Your task to perform on an android device: open a bookmark in the chrome app Image 0: 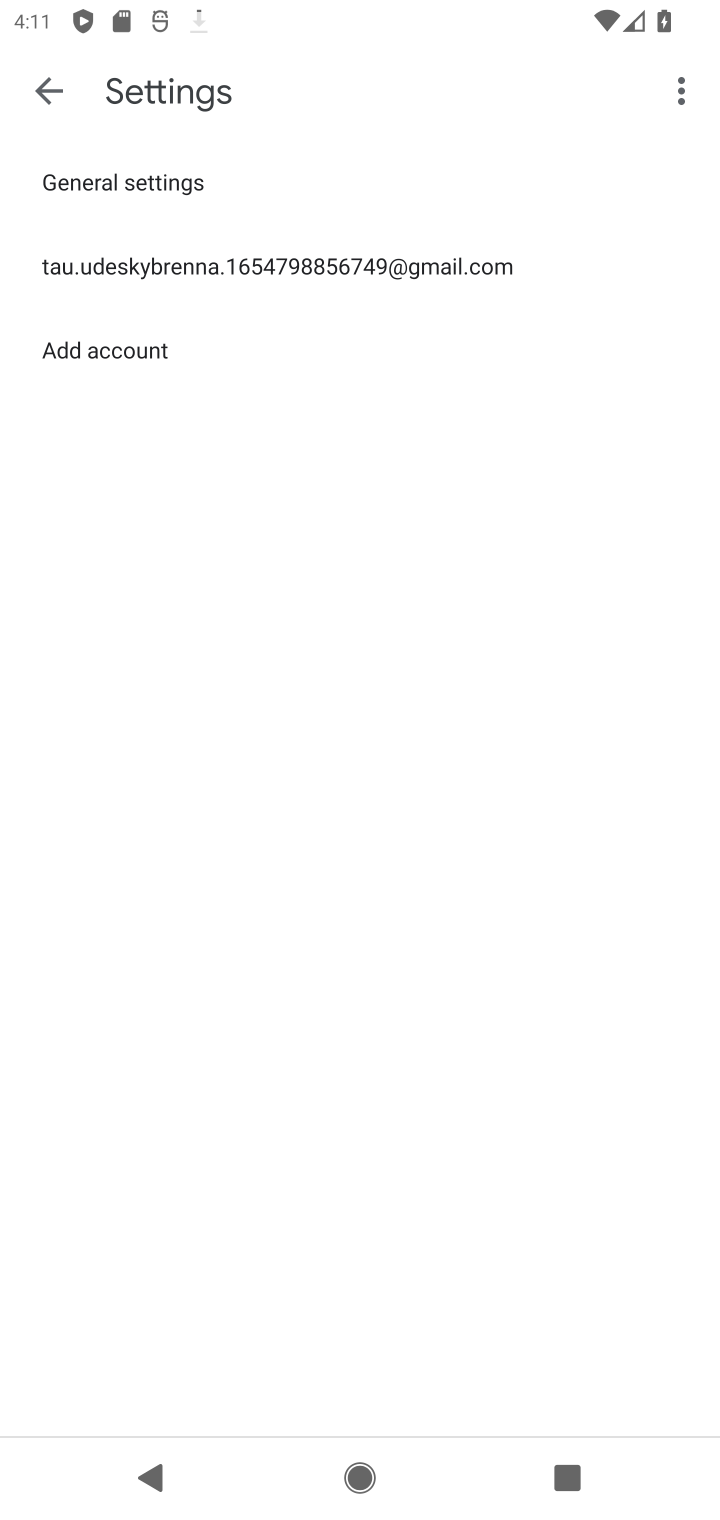
Step 0: press home button
Your task to perform on an android device: open a bookmark in the chrome app Image 1: 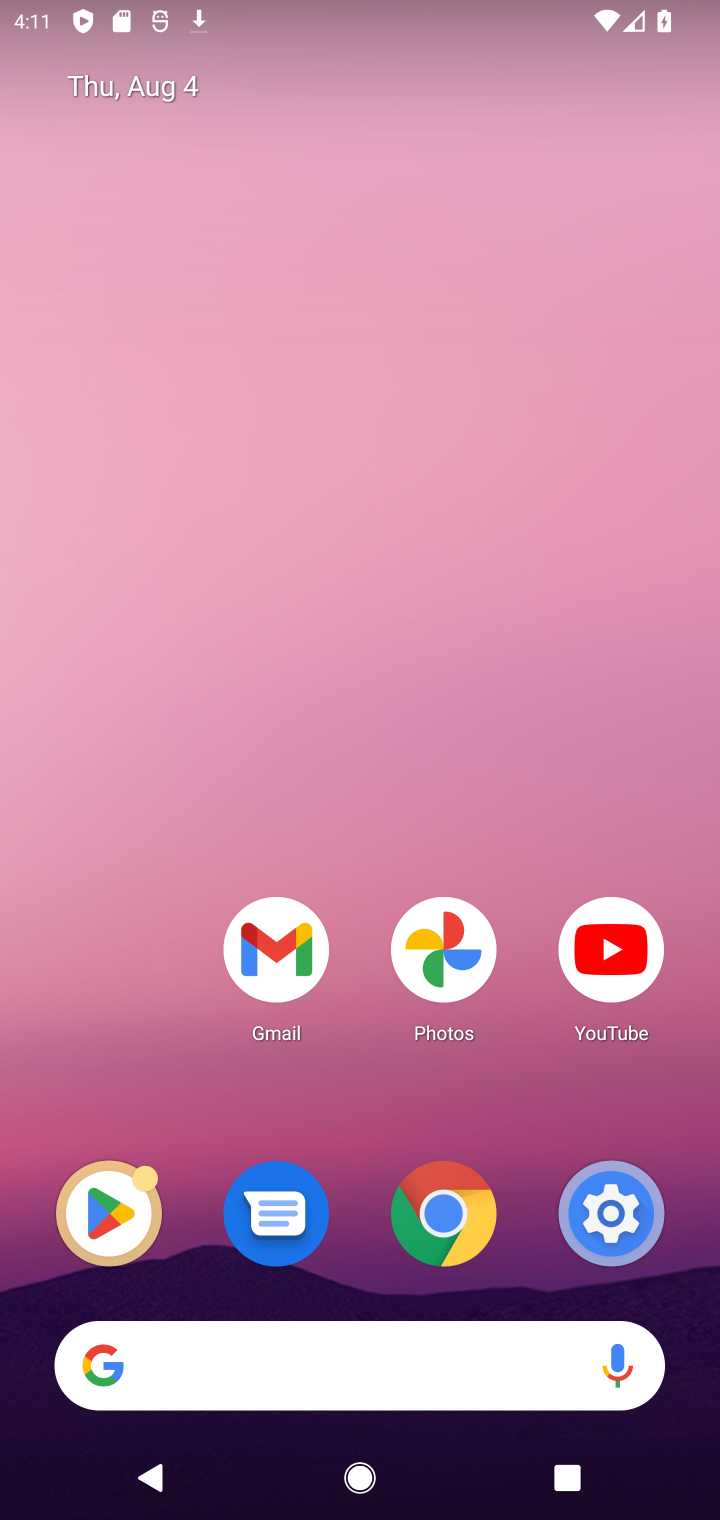
Step 1: drag from (168, 1101) to (275, 195)
Your task to perform on an android device: open a bookmark in the chrome app Image 2: 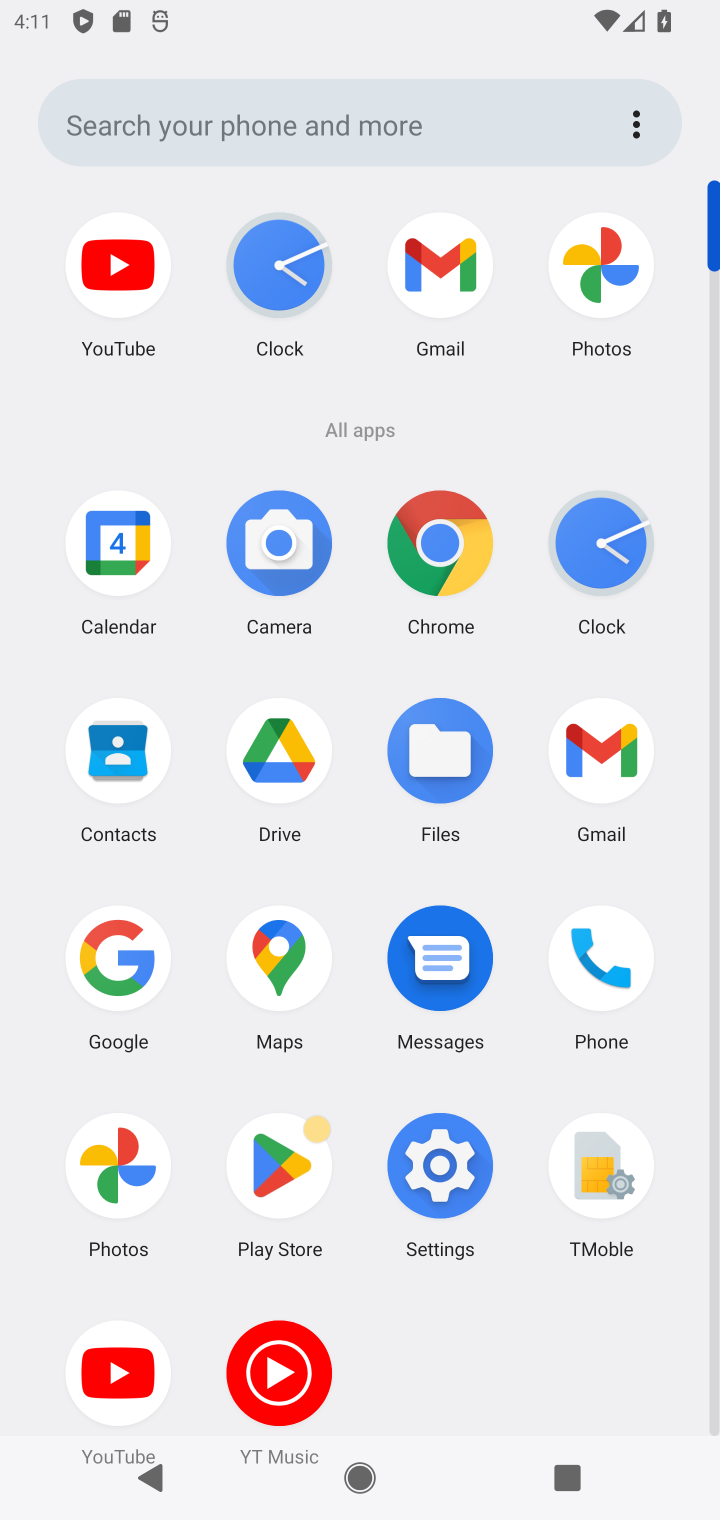
Step 2: click (441, 533)
Your task to perform on an android device: open a bookmark in the chrome app Image 3: 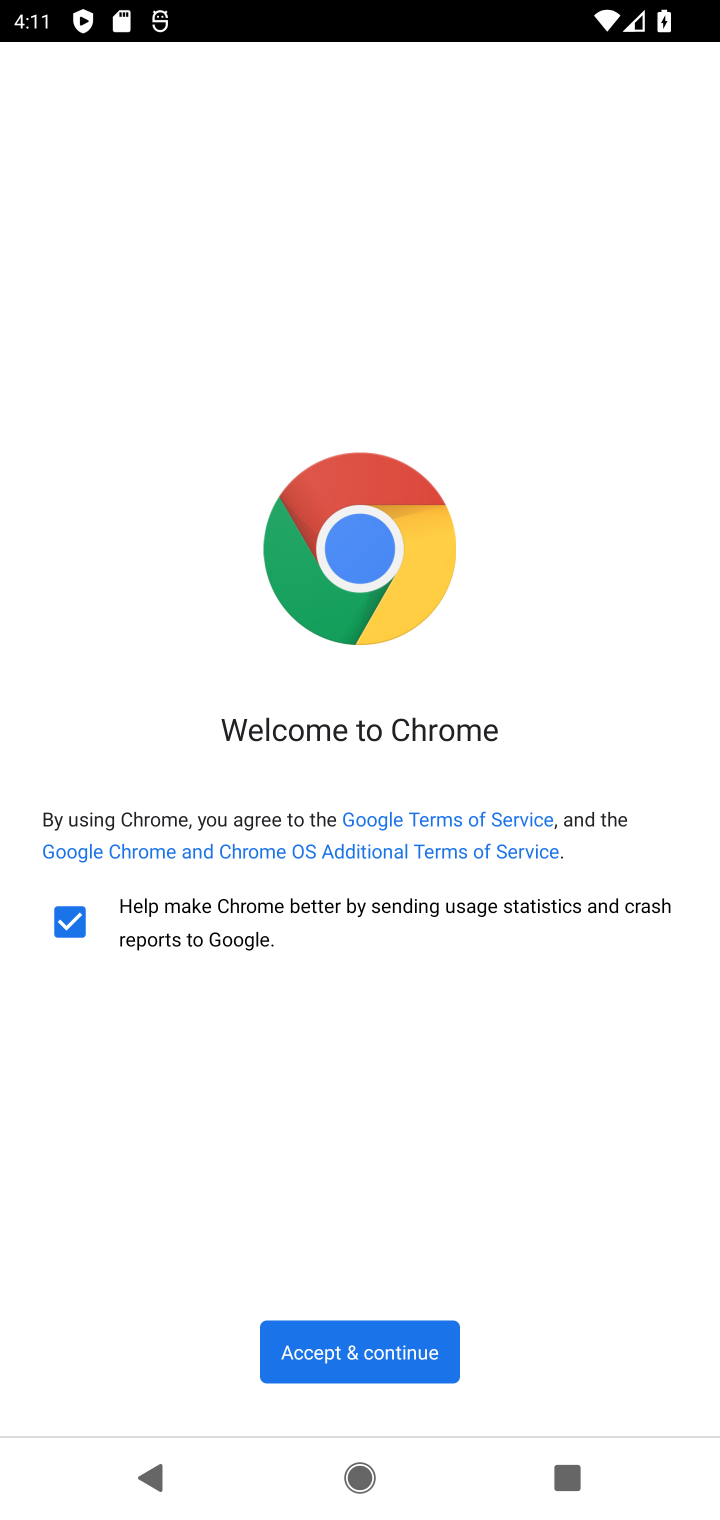
Step 3: click (376, 1357)
Your task to perform on an android device: open a bookmark in the chrome app Image 4: 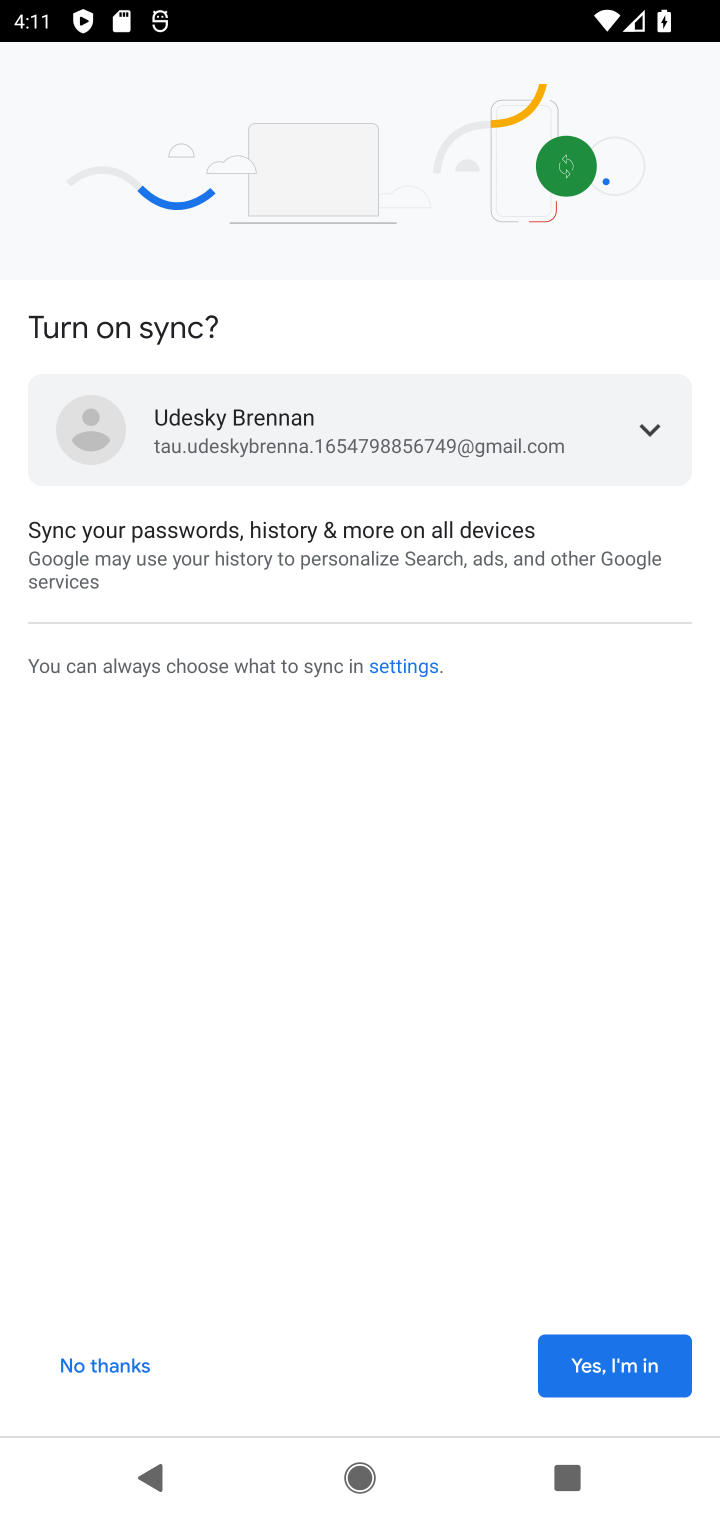
Step 4: click (633, 1367)
Your task to perform on an android device: open a bookmark in the chrome app Image 5: 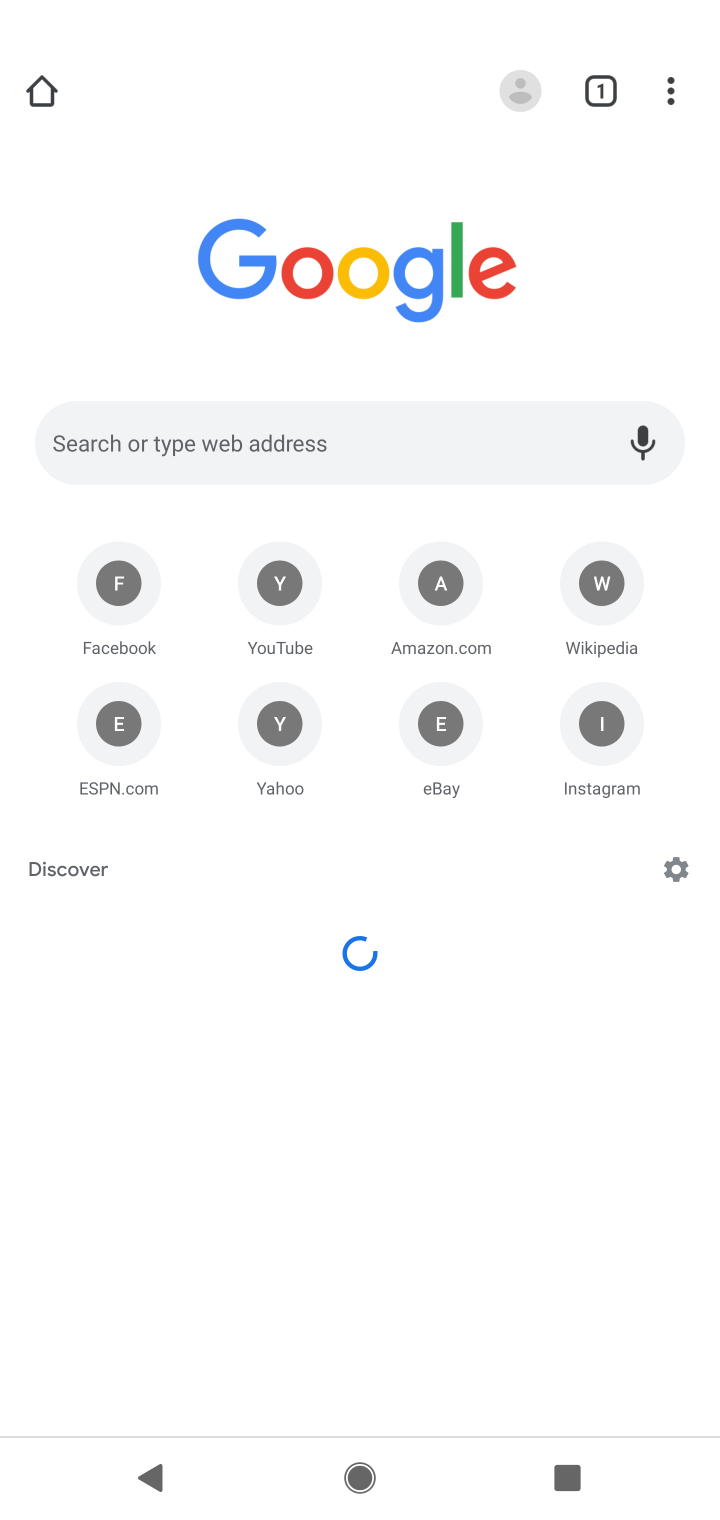
Step 5: click (626, 1354)
Your task to perform on an android device: open a bookmark in the chrome app Image 6: 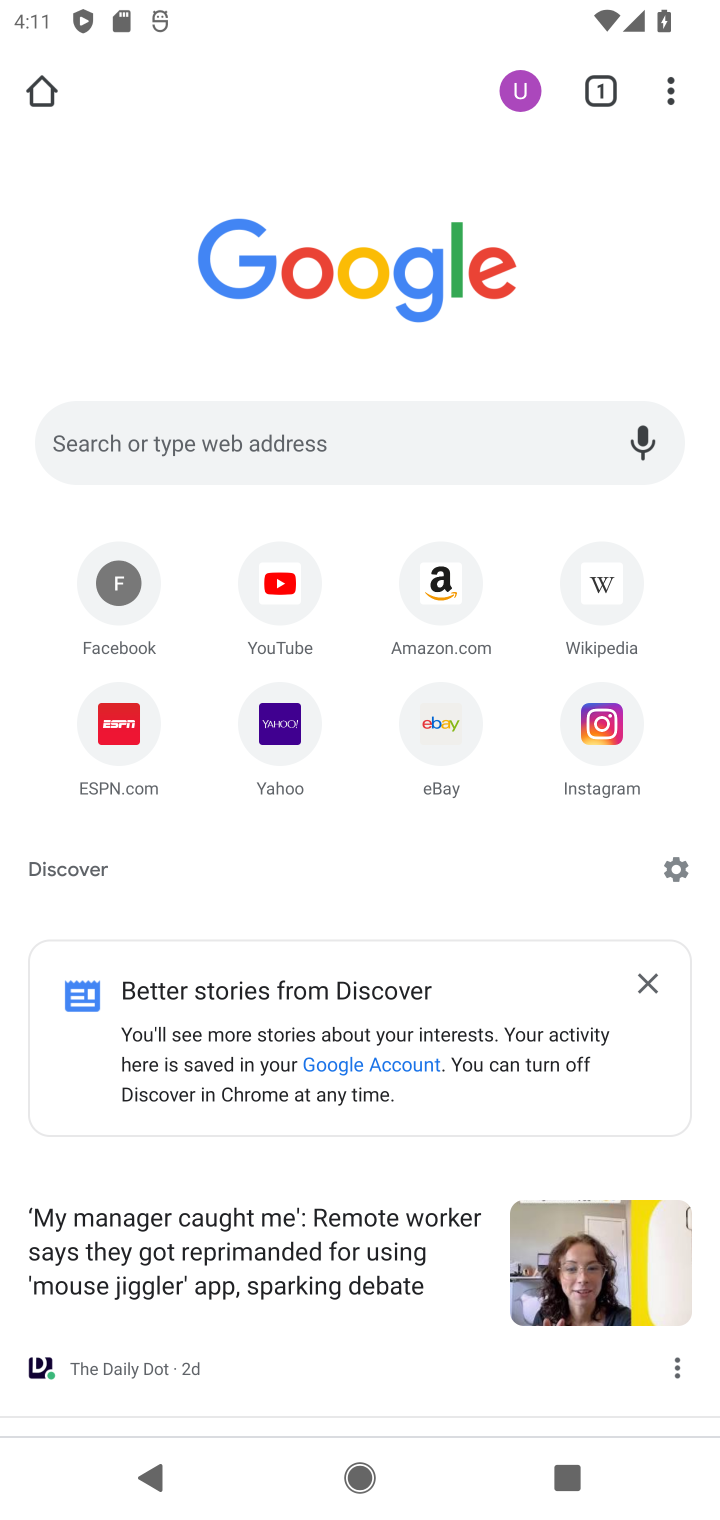
Step 6: click (668, 83)
Your task to perform on an android device: open a bookmark in the chrome app Image 7: 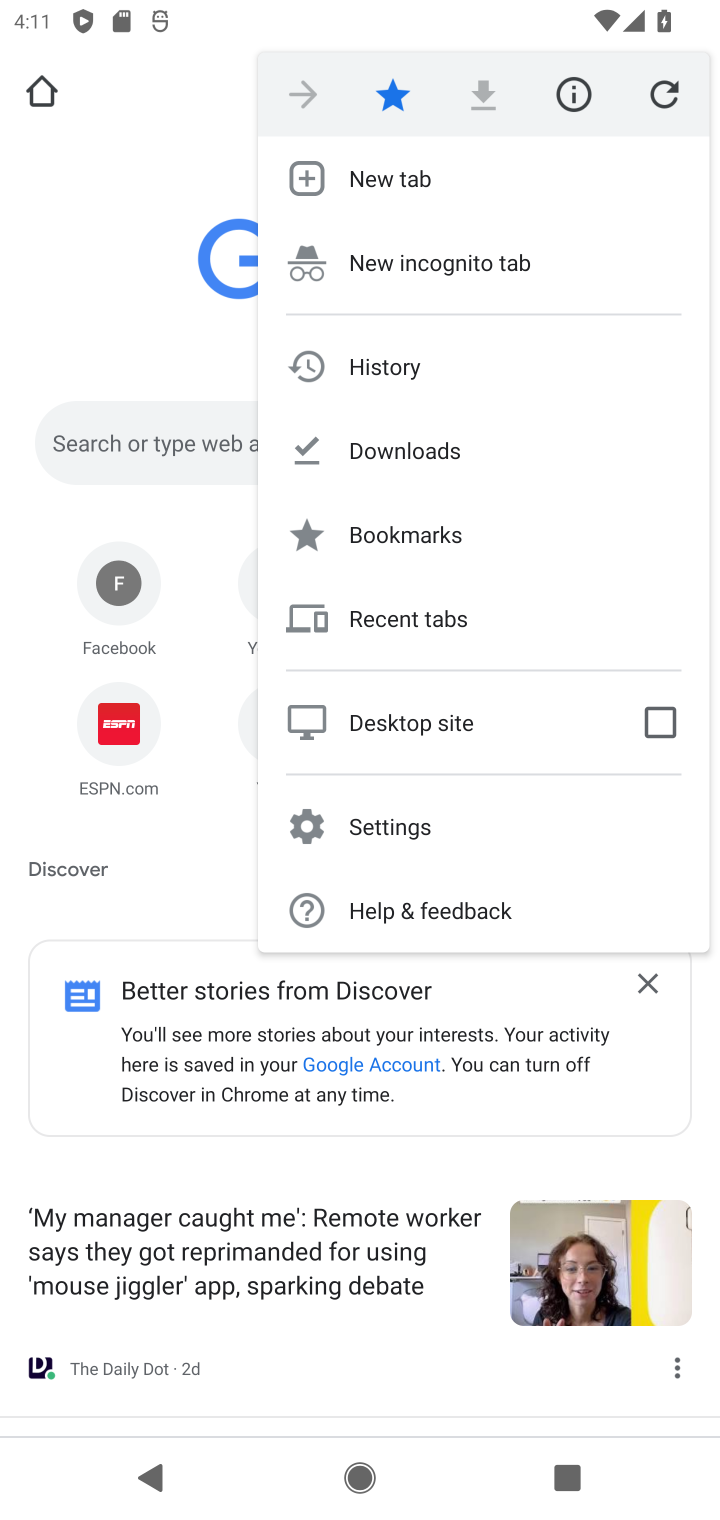
Step 7: click (436, 545)
Your task to perform on an android device: open a bookmark in the chrome app Image 8: 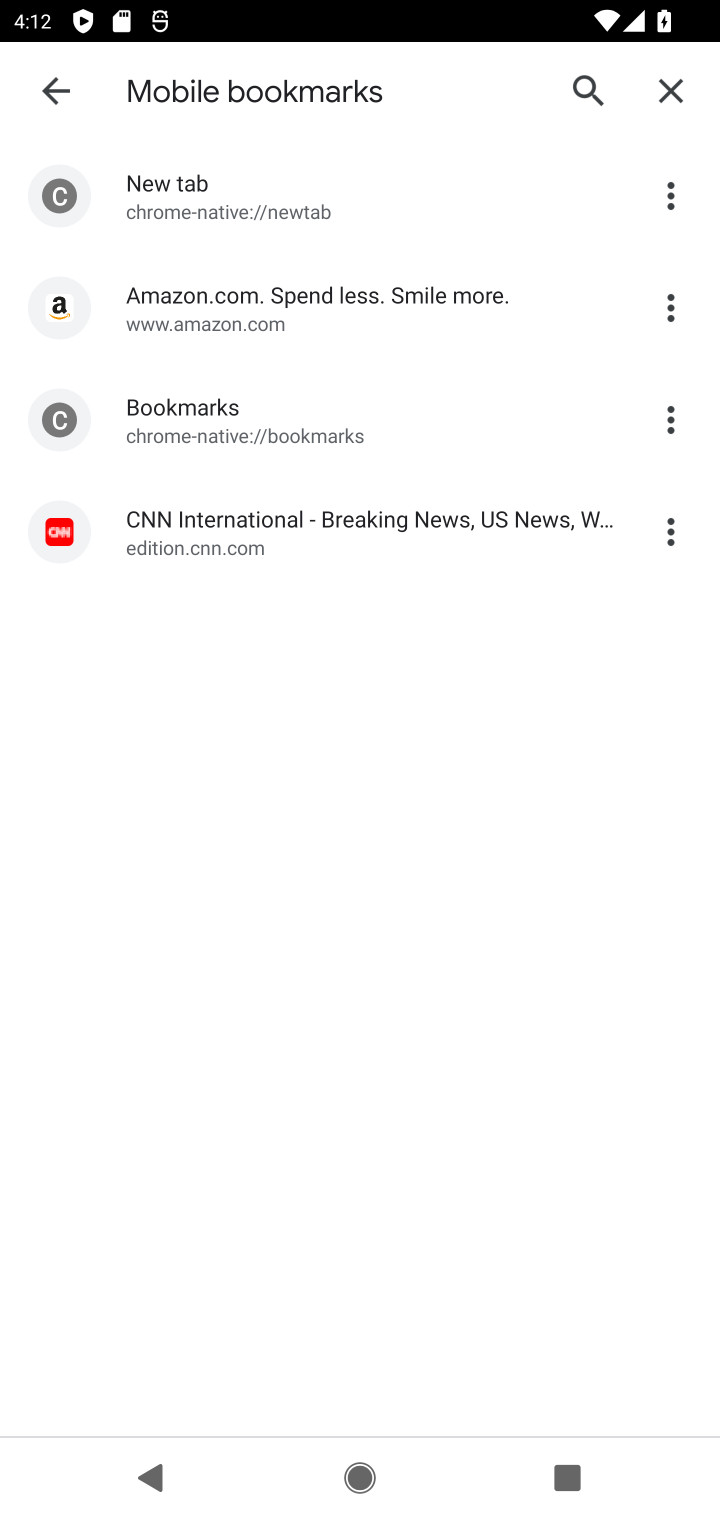
Step 8: click (357, 296)
Your task to perform on an android device: open a bookmark in the chrome app Image 9: 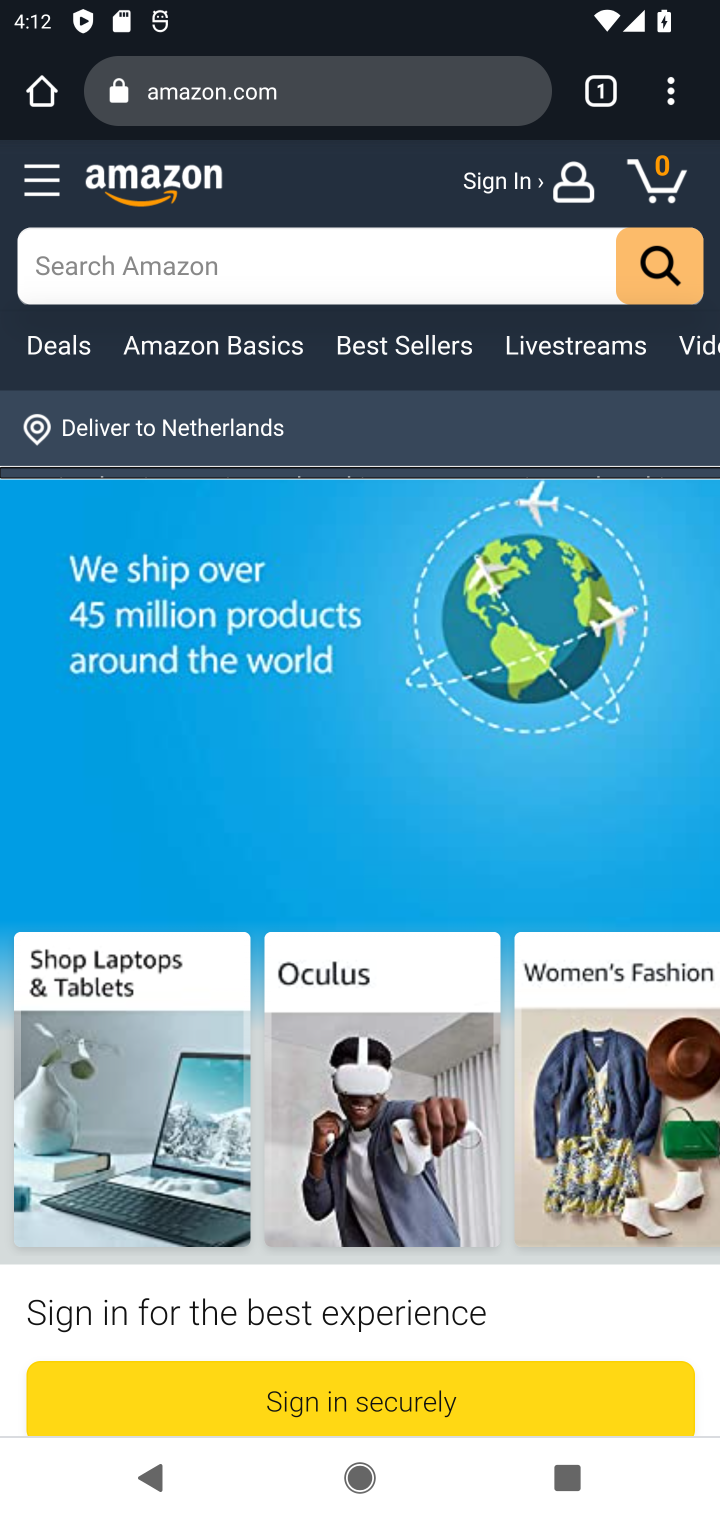
Step 9: task complete